Your task to perform on an android device: turn on airplane mode Image 0: 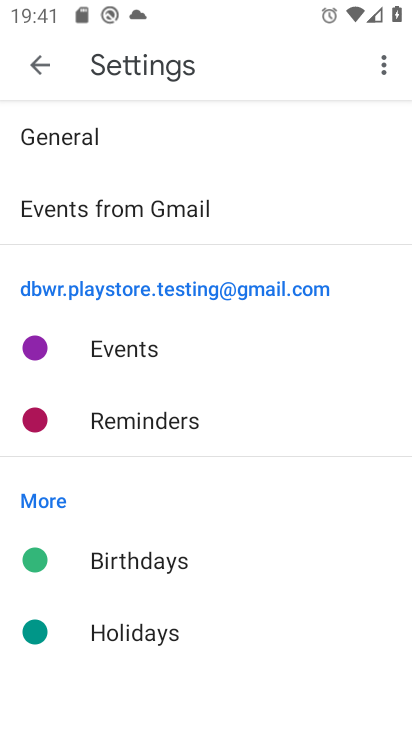
Step 0: press home button
Your task to perform on an android device: turn on airplane mode Image 1: 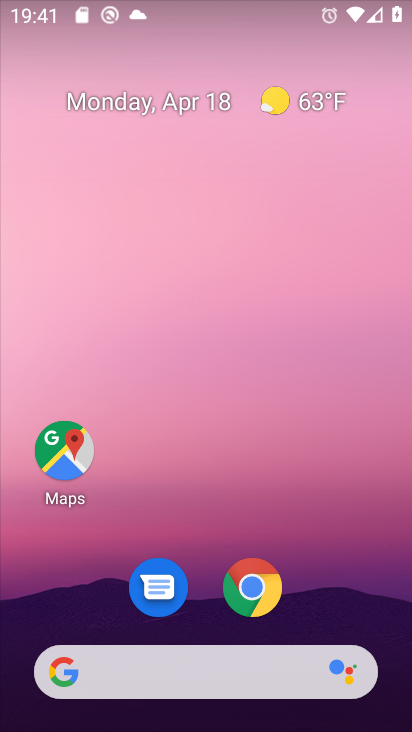
Step 1: drag from (334, 607) to (326, 101)
Your task to perform on an android device: turn on airplane mode Image 2: 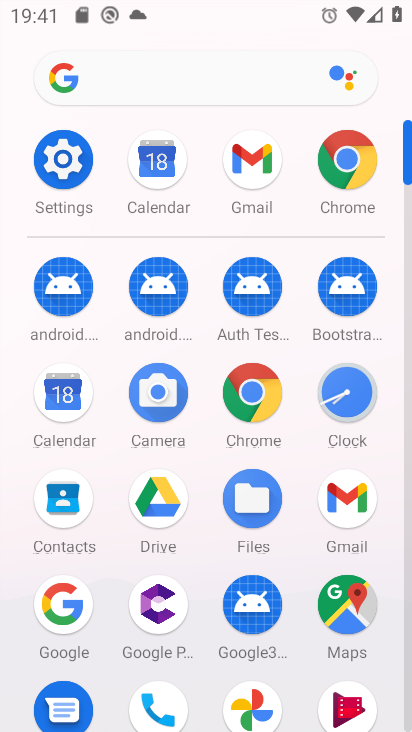
Step 2: click (67, 173)
Your task to perform on an android device: turn on airplane mode Image 3: 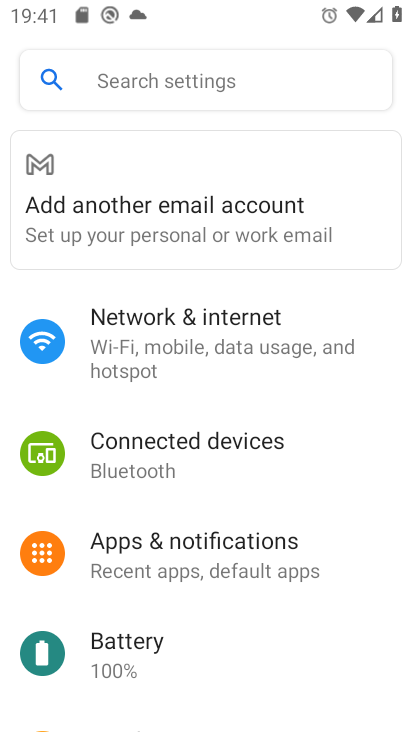
Step 3: click (262, 331)
Your task to perform on an android device: turn on airplane mode Image 4: 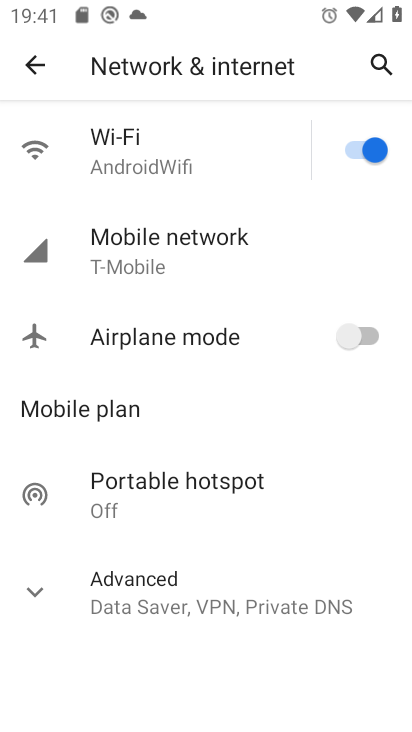
Step 4: click (314, 341)
Your task to perform on an android device: turn on airplane mode Image 5: 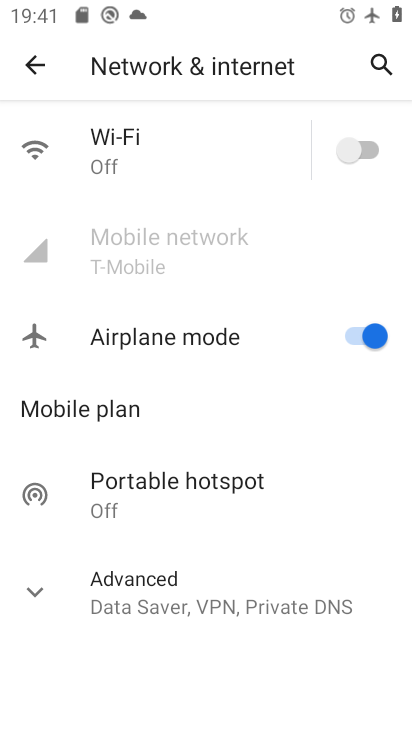
Step 5: task complete